Your task to perform on an android device: Open privacy settings Image 0: 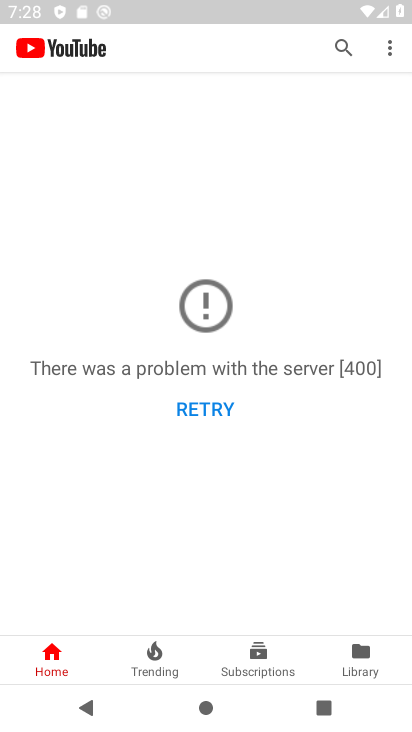
Step 0: press home button
Your task to perform on an android device: Open privacy settings Image 1: 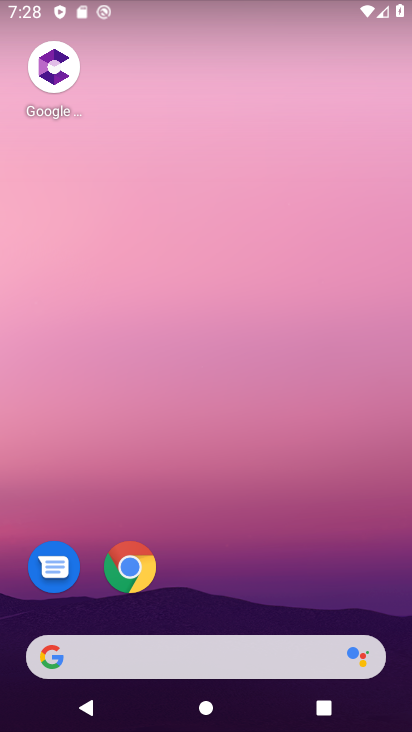
Step 1: drag from (267, 613) to (136, 0)
Your task to perform on an android device: Open privacy settings Image 2: 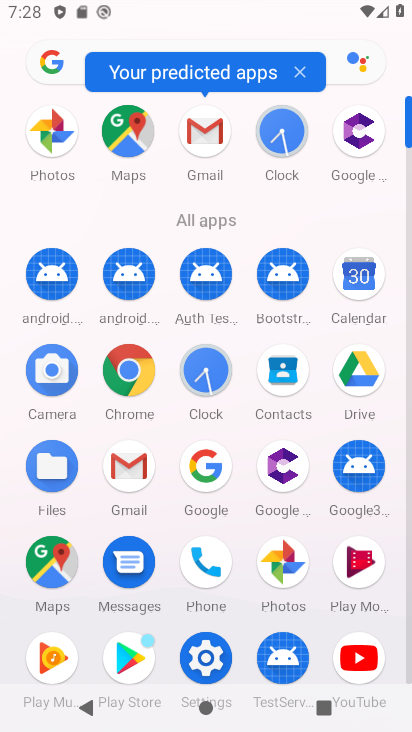
Step 2: click (211, 669)
Your task to perform on an android device: Open privacy settings Image 3: 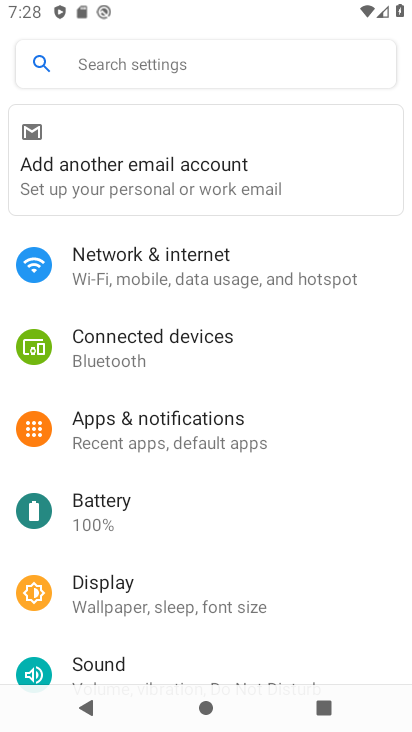
Step 3: click (153, 291)
Your task to perform on an android device: Open privacy settings Image 4: 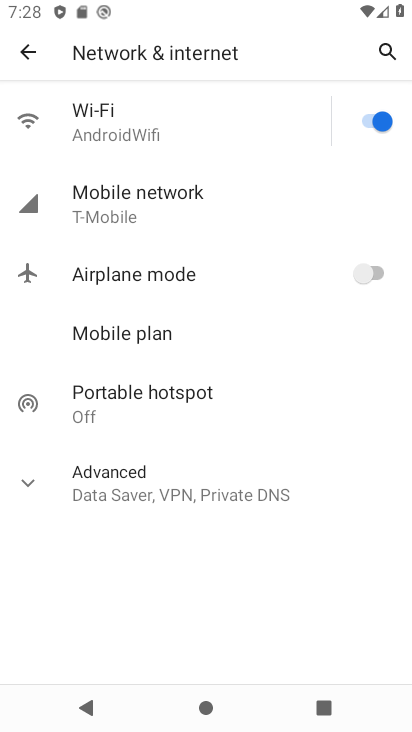
Step 4: task complete